Your task to perform on an android device: open chrome privacy settings Image 0: 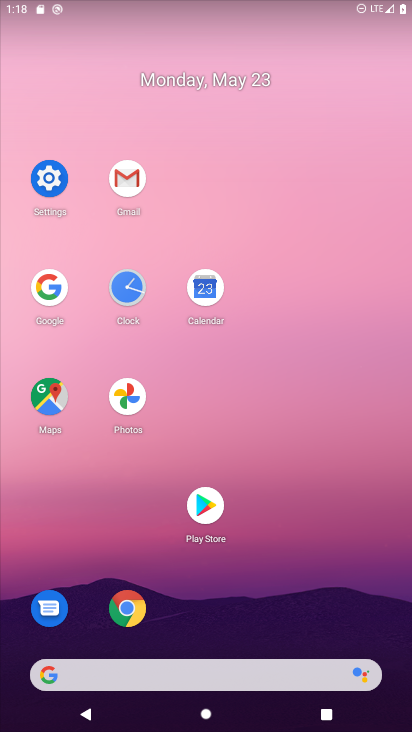
Step 0: click (119, 620)
Your task to perform on an android device: open chrome privacy settings Image 1: 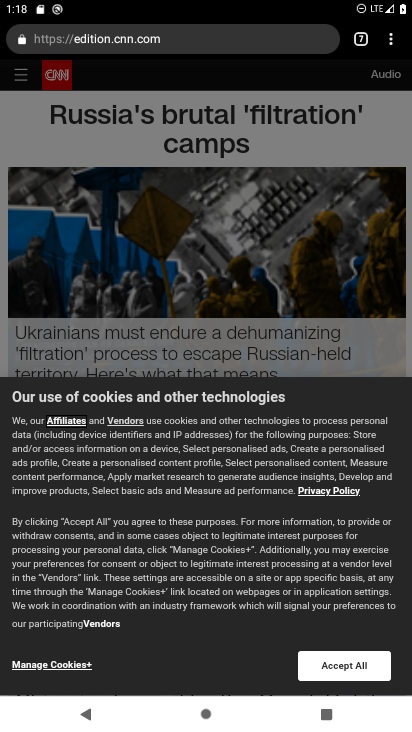
Step 1: click (393, 40)
Your task to perform on an android device: open chrome privacy settings Image 2: 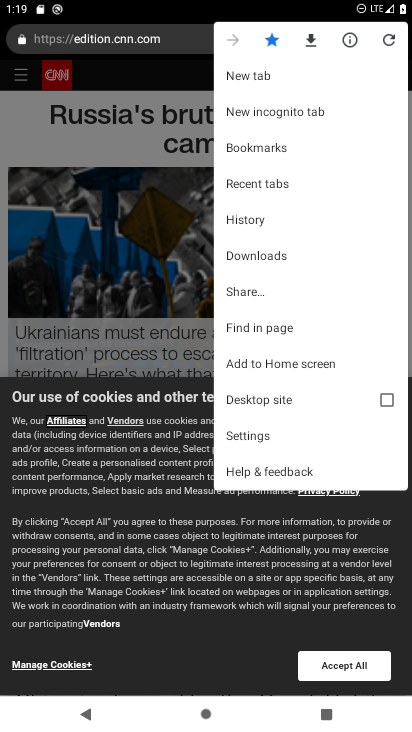
Step 2: click (271, 432)
Your task to perform on an android device: open chrome privacy settings Image 3: 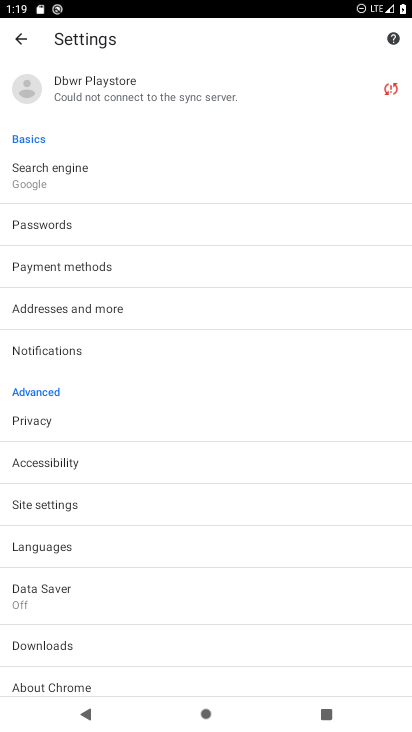
Step 3: click (113, 413)
Your task to perform on an android device: open chrome privacy settings Image 4: 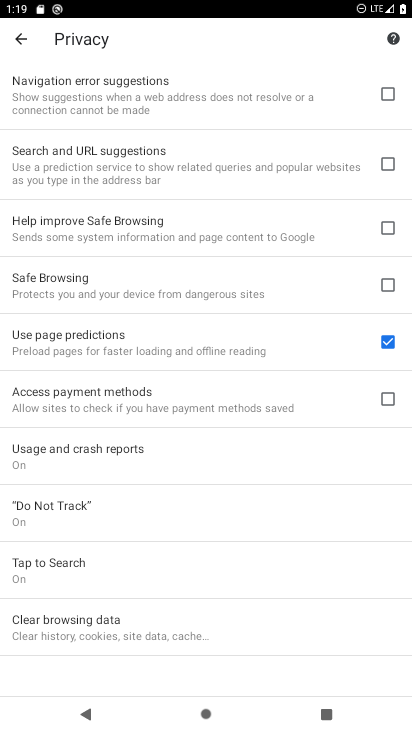
Step 4: task complete